Your task to perform on an android device: Open CNN.com Image 0: 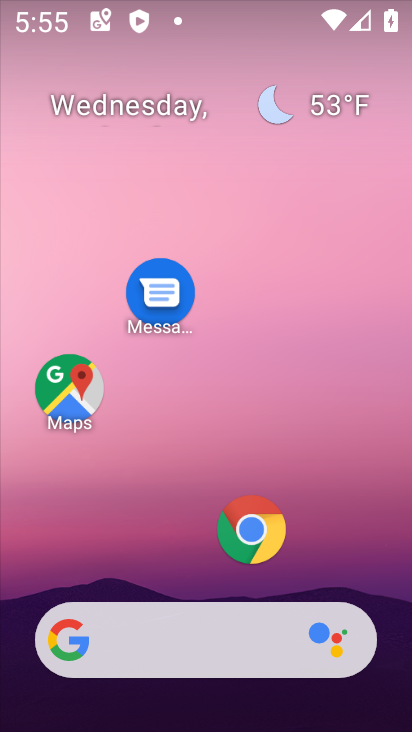
Step 0: click (248, 541)
Your task to perform on an android device: Open CNN.com Image 1: 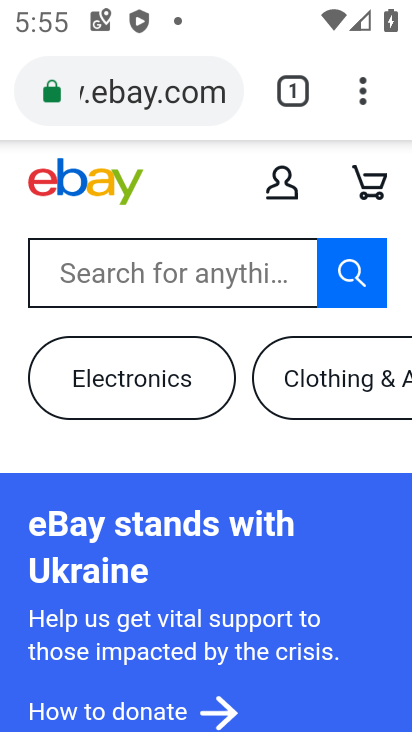
Step 1: press back button
Your task to perform on an android device: Open CNN.com Image 2: 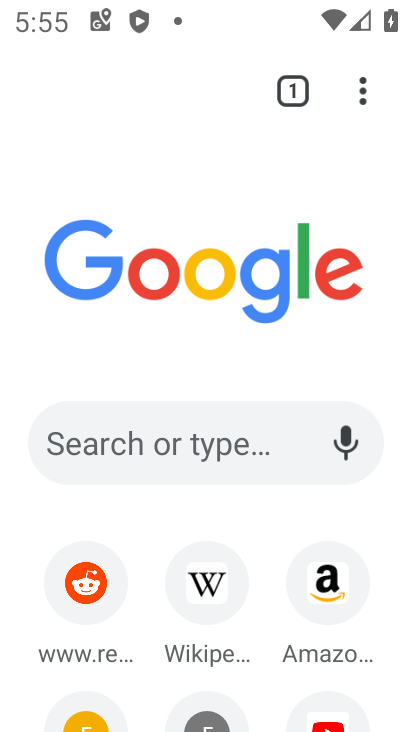
Step 2: drag from (257, 640) to (257, 444)
Your task to perform on an android device: Open CNN.com Image 3: 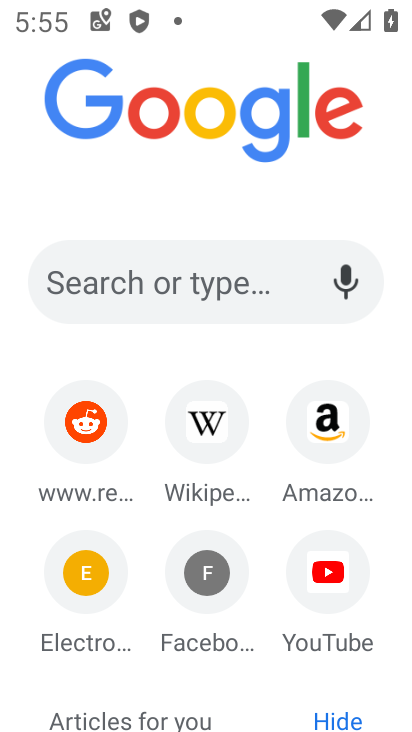
Step 3: click (192, 286)
Your task to perform on an android device: Open CNN.com Image 4: 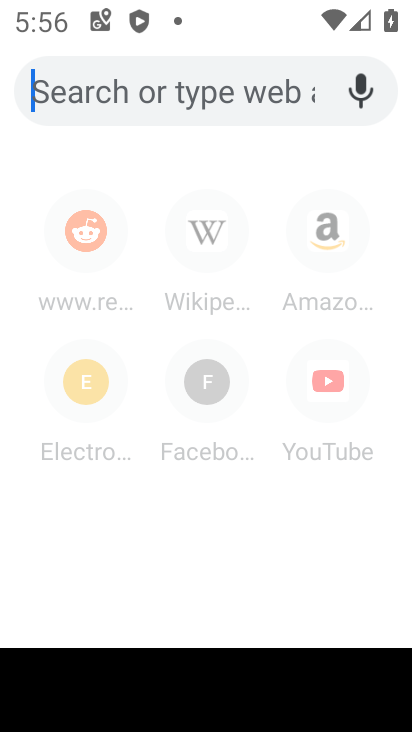
Step 4: type "www.cnn.com"
Your task to perform on an android device: Open CNN.com Image 5: 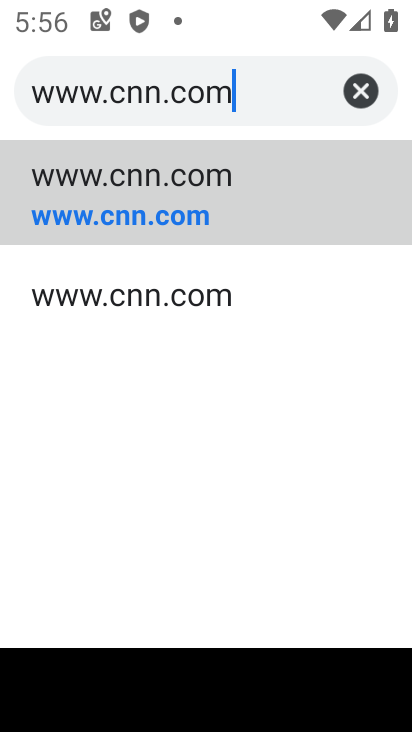
Step 5: click (185, 226)
Your task to perform on an android device: Open CNN.com Image 6: 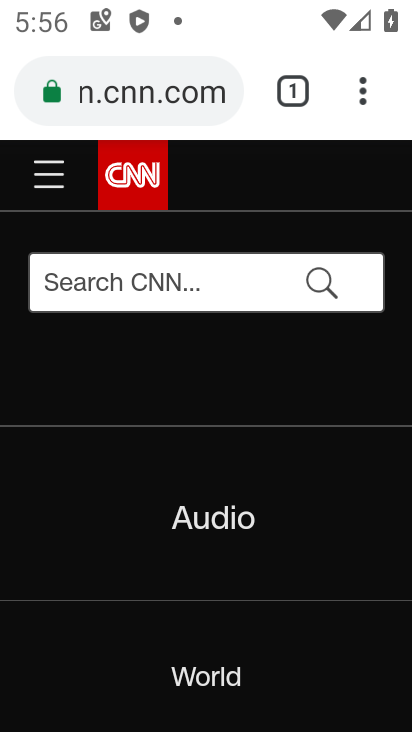
Step 6: task complete